Your task to perform on an android device: turn off airplane mode Image 0: 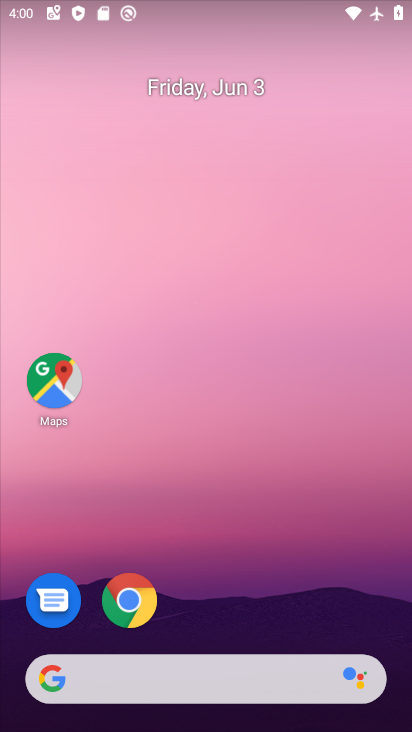
Step 0: drag from (208, 628) to (292, 4)
Your task to perform on an android device: turn off airplane mode Image 1: 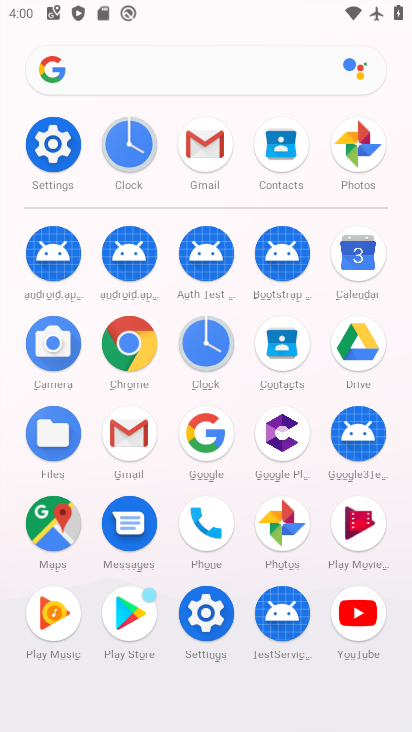
Step 1: click (65, 166)
Your task to perform on an android device: turn off airplane mode Image 2: 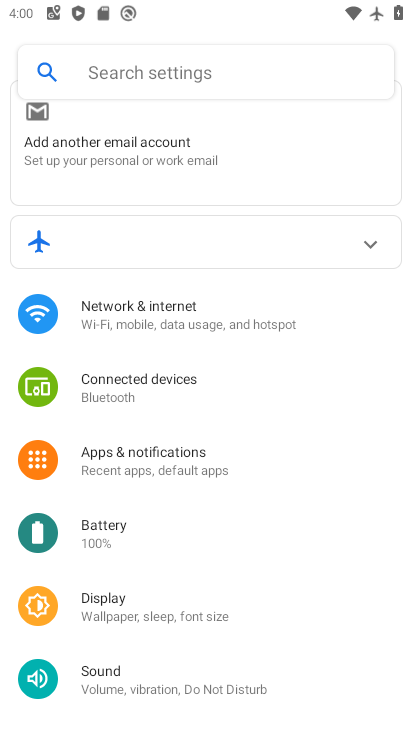
Step 2: click (215, 336)
Your task to perform on an android device: turn off airplane mode Image 3: 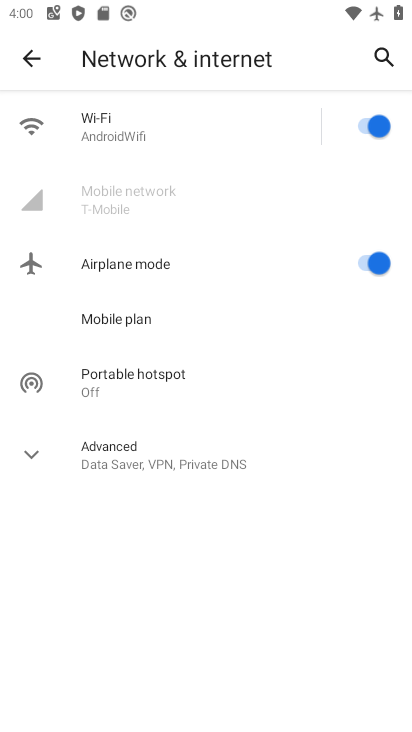
Step 3: click (362, 254)
Your task to perform on an android device: turn off airplane mode Image 4: 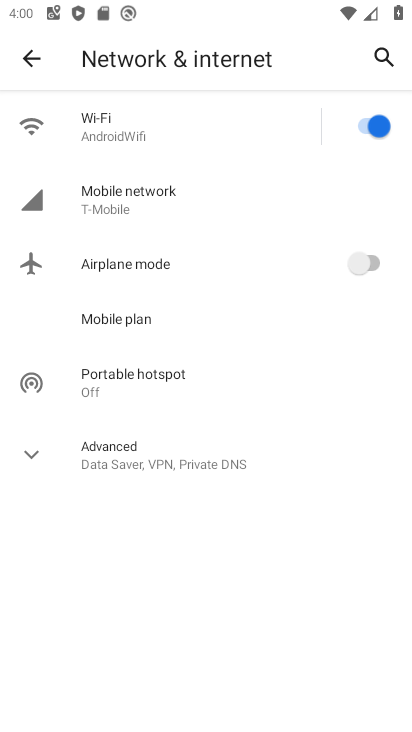
Step 4: task complete